Your task to perform on an android device: find photos in the google photos app Image 0: 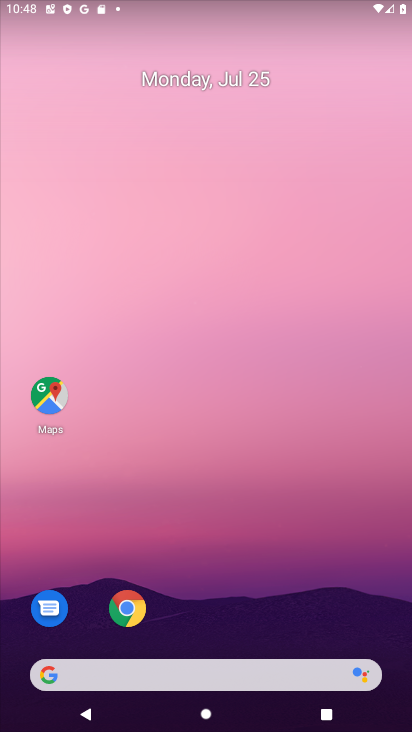
Step 0: drag from (158, 621) to (222, 166)
Your task to perform on an android device: find photos in the google photos app Image 1: 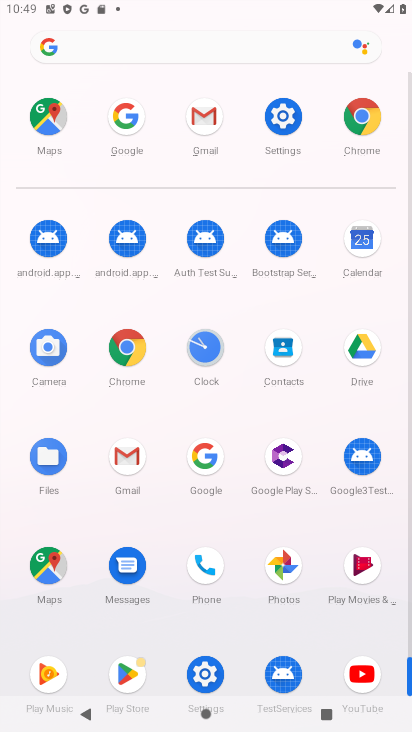
Step 1: click (287, 586)
Your task to perform on an android device: find photos in the google photos app Image 2: 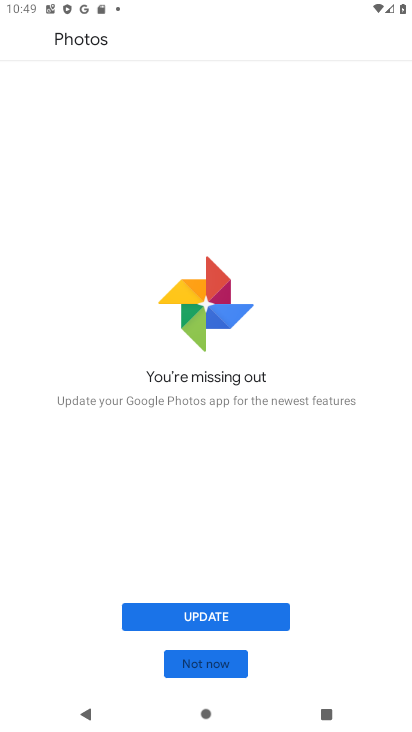
Step 2: click (194, 666)
Your task to perform on an android device: find photos in the google photos app Image 3: 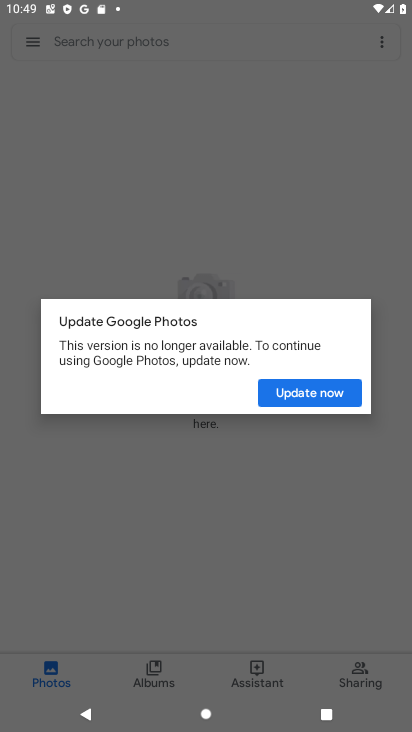
Step 3: click (331, 398)
Your task to perform on an android device: find photos in the google photos app Image 4: 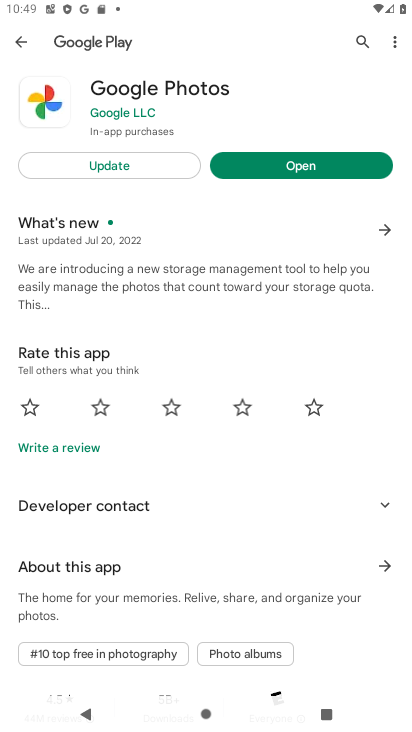
Step 4: click (94, 166)
Your task to perform on an android device: find photos in the google photos app Image 5: 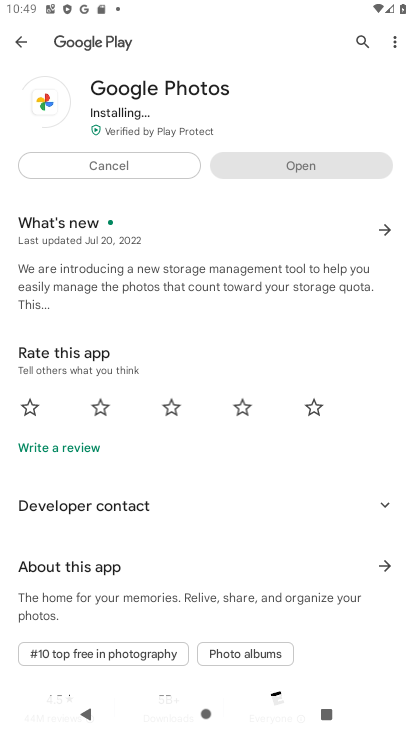
Step 5: task complete